Your task to perform on an android device: Go to wifi settings Image 0: 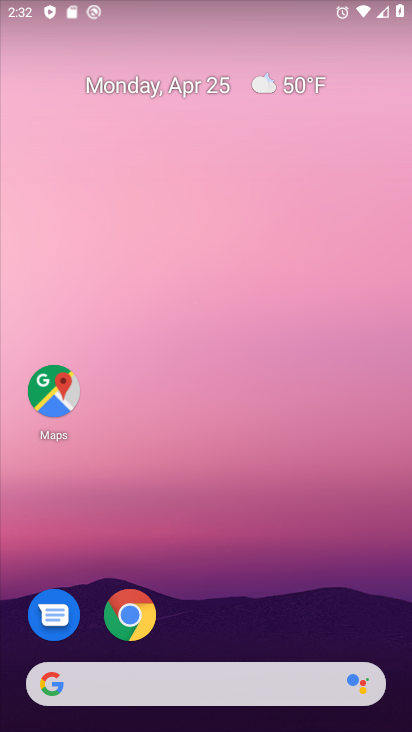
Step 0: drag from (217, 573) to (190, 191)
Your task to perform on an android device: Go to wifi settings Image 1: 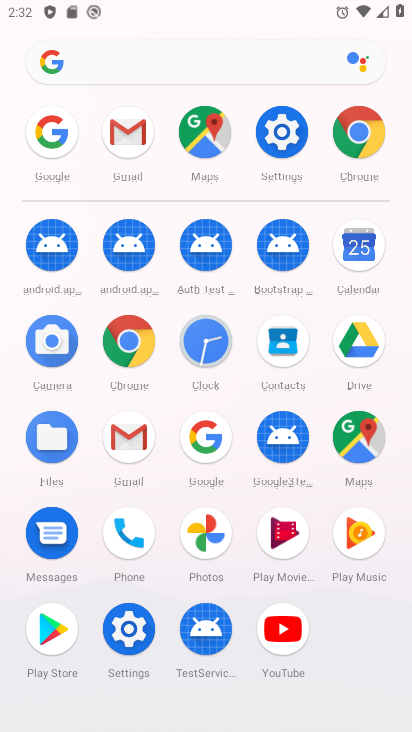
Step 1: click (279, 131)
Your task to perform on an android device: Go to wifi settings Image 2: 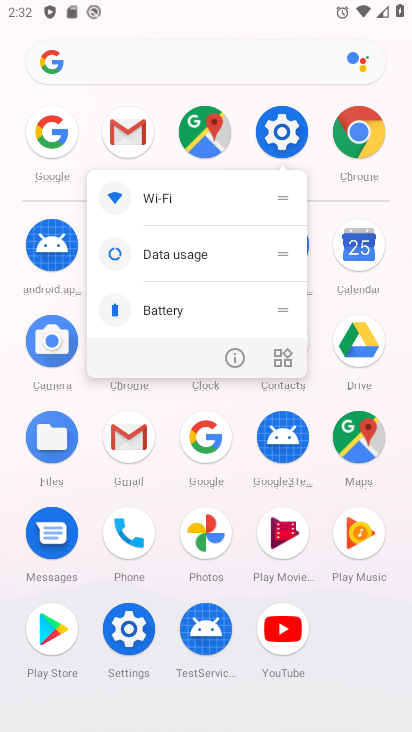
Step 2: click (285, 132)
Your task to perform on an android device: Go to wifi settings Image 3: 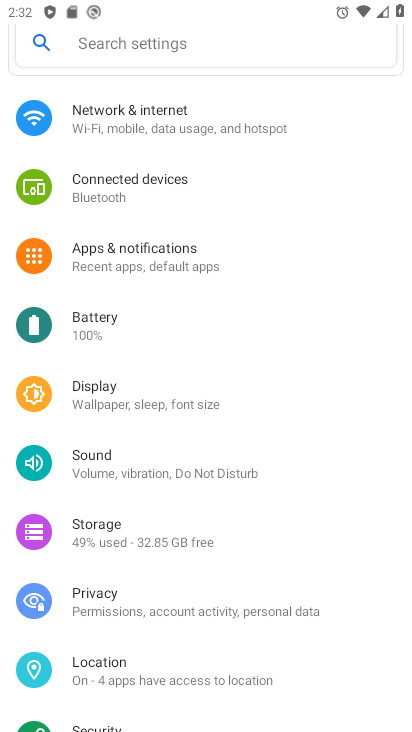
Step 3: click (164, 117)
Your task to perform on an android device: Go to wifi settings Image 4: 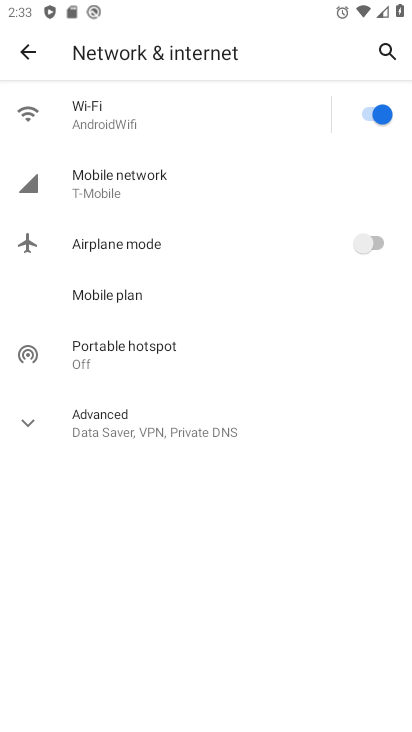
Step 4: click (102, 121)
Your task to perform on an android device: Go to wifi settings Image 5: 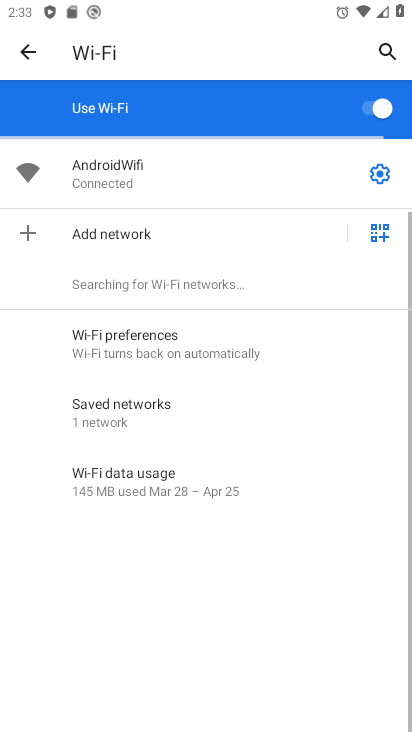
Step 5: click (382, 175)
Your task to perform on an android device: Go to wifi settings Image 6: 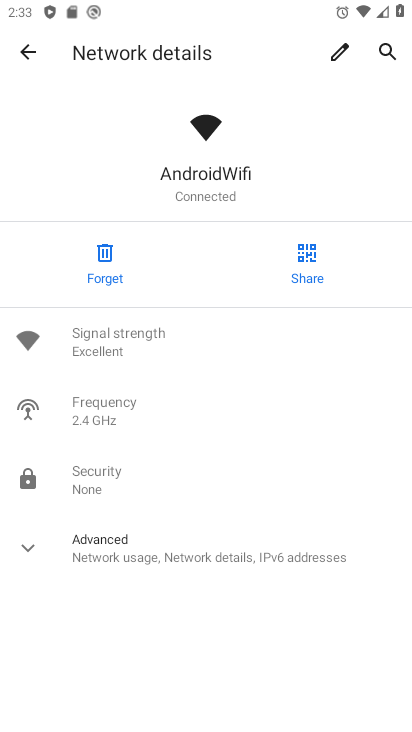
Step 6: task complete